Your task to perform on an android device: empty trash in the gmail app Image 0: 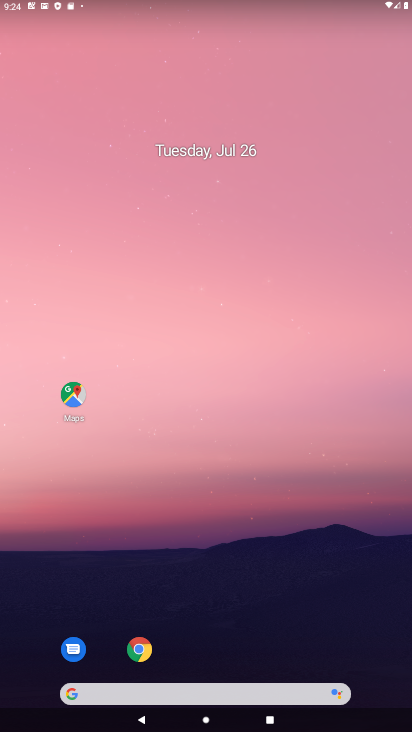
Step 0: drag from (184, 650) to (311, 41)
Your task to perform on an android device: empty trash in the gmail app Image 1: 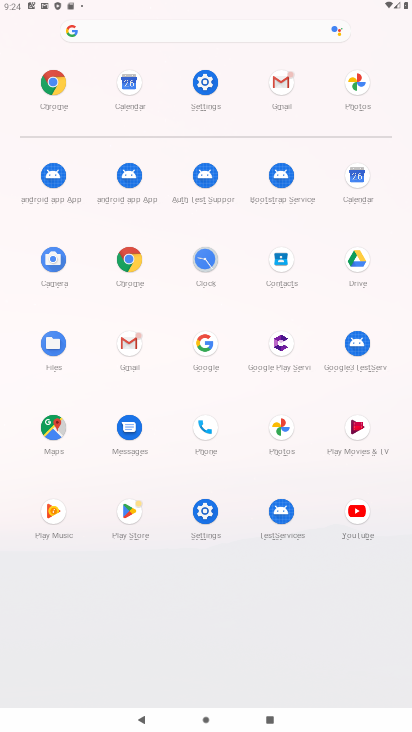
Step 1: click (129, 335)
Your task to perform on an android device: empty trash in the gmail app Image 2: 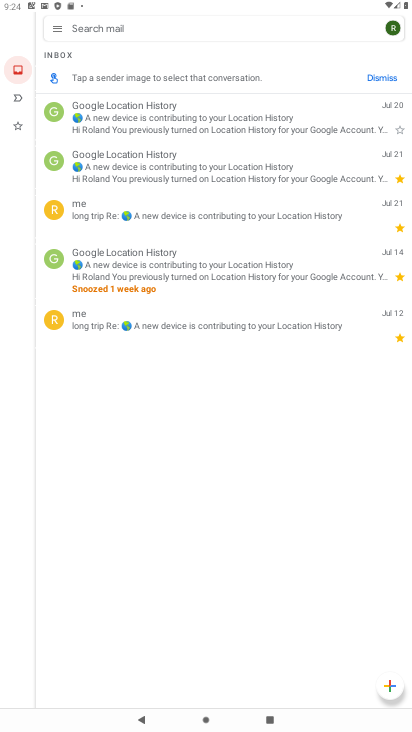
Step 2: click (48, 28)
Your task to perform on an android device: empty trash in the gmail app Image 3: 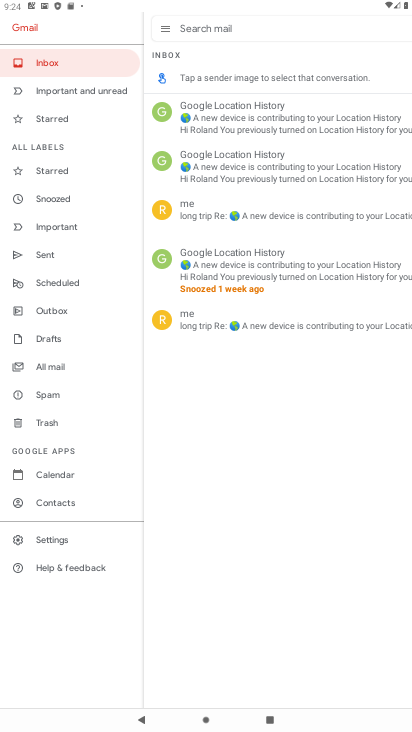
Step 3: click (63, 421)
Your task to perform on an android device: empty trash in the gmail app Image 4: 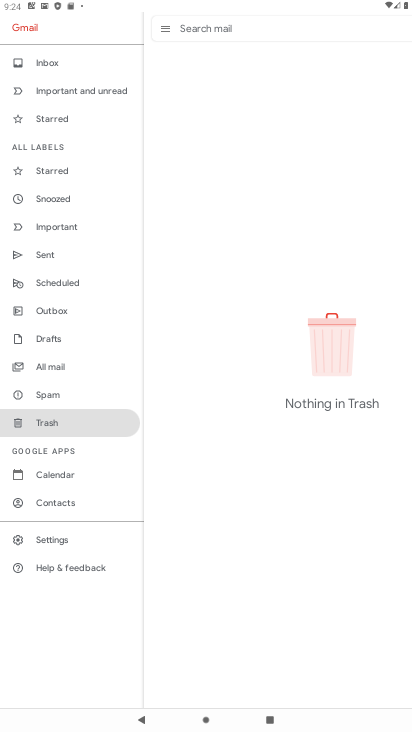
Step 4: drag from (193, 461) to (226, 203)
Your task to perform on an android device: empty trash in the gmail app Image 5: 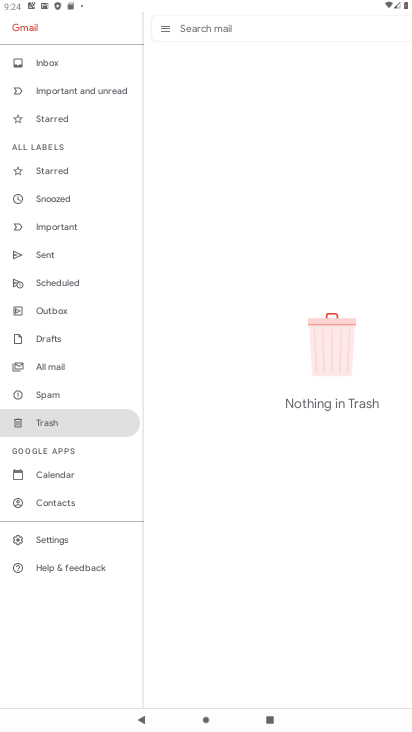
Step 5: click (46, 418)
Your task to perform on an android device: empty trash in the gmail app Image 6: 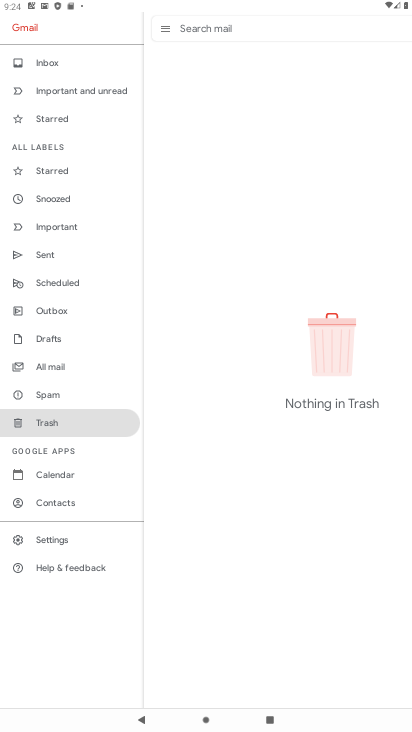
Step 6: click (28, 420)
Your task to perform on an android device: empty trash in the gmail app Image 7: 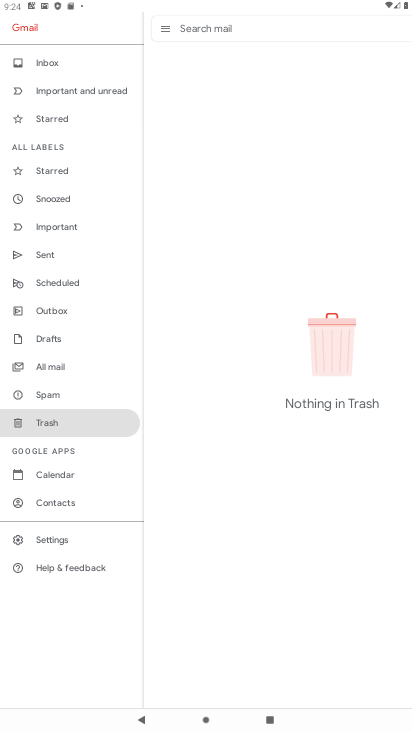
Step 7: click (27, 420)
Your task to perform on an android device: empty trash in the gmail app Image 8: 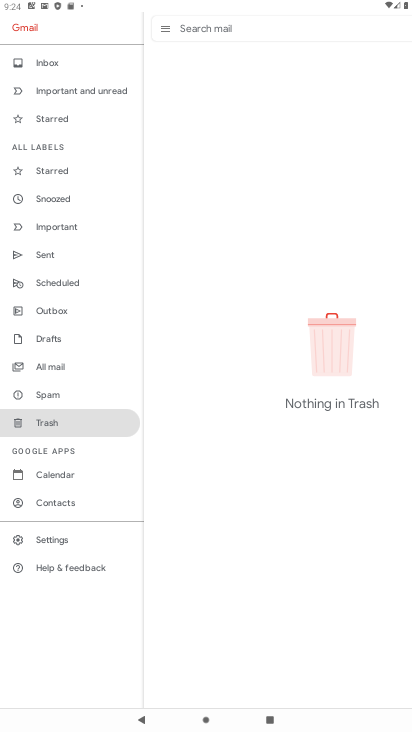
Step 8: click (27, 420)
Your task to perform on an android device: empty trash in the gmail app Image 9: 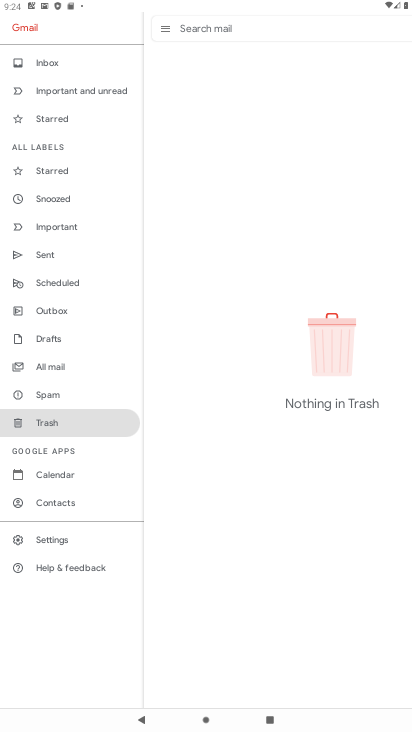
Step 9: drag from (244, 471) to (283, 213)
Your task to perform on an android device: empty trash in the gmail app Image 10: 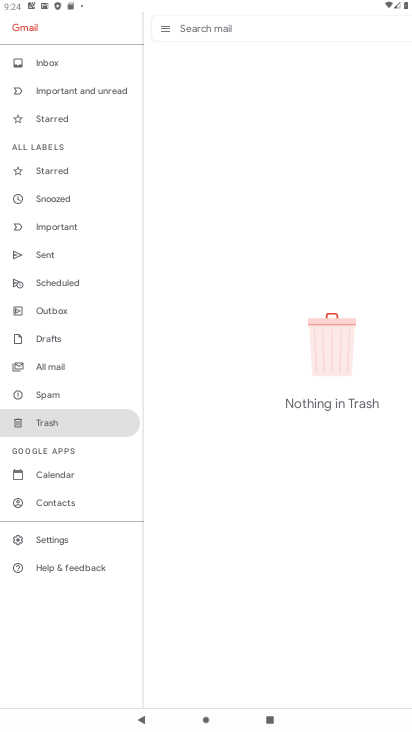
Step 10: click (39, 423)
Your task to perform on an android device: empty trash in the gmail app Image 11: 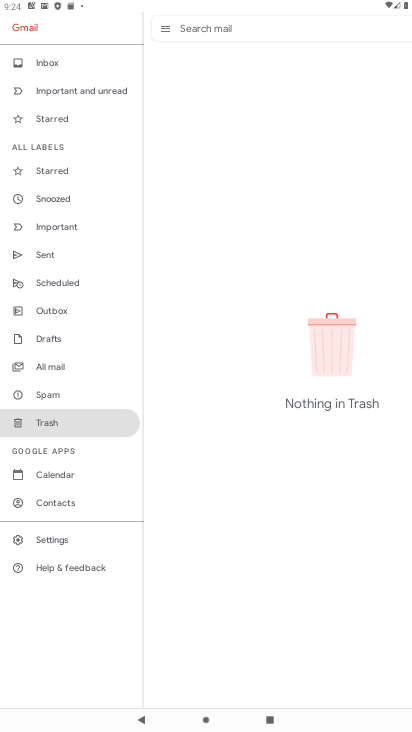
Step 11: drag from (243, 512) to (230, 274)
Your task to perform on an android device: empty trash in the gmail app Image 12: 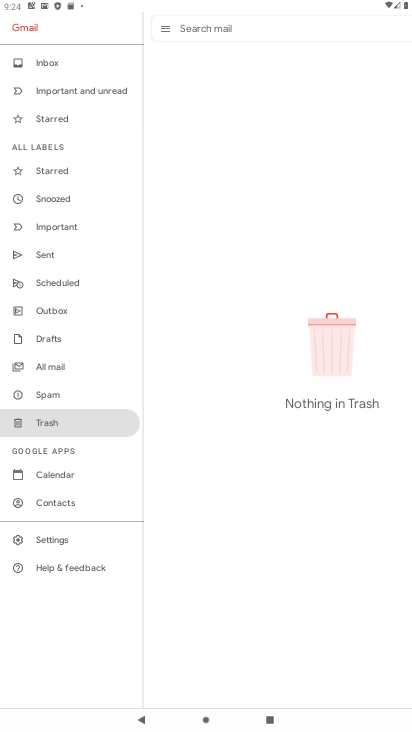
Step 12: drag from (308, 143) to (267, 570)
Your task to perform on an android device: empty trash in the gmail app Image 13: 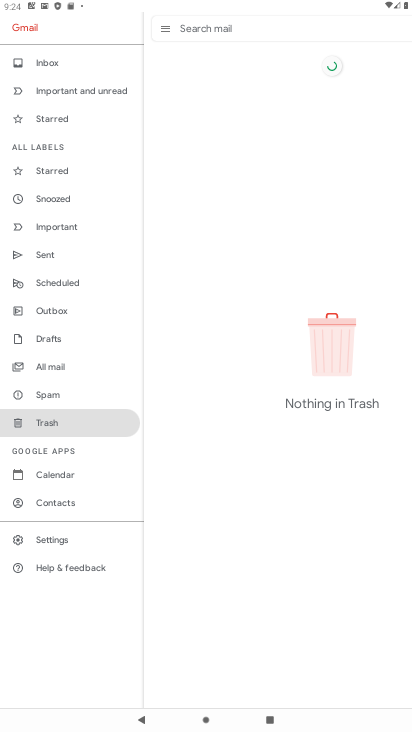
Step 13: drag from (281, 520) to (250, 359)
Your task to perform on an android device: empty trash in the gmail app Image 14: 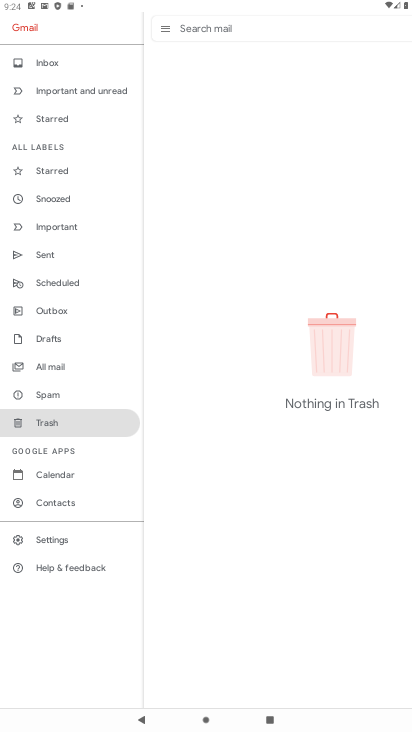
Step 14: click (281, 153)
Your task to perform on an android device: empty trash in the gmail app Image 15: 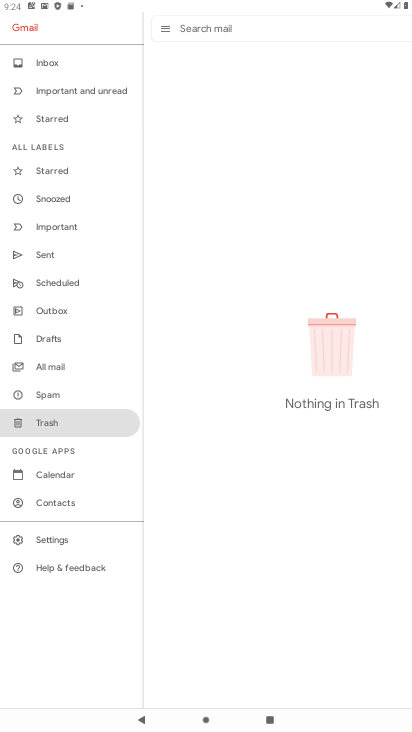
Step 15: click (286, 317)
Your task to perform on an android device: empty trash in the gmail app Image 16: 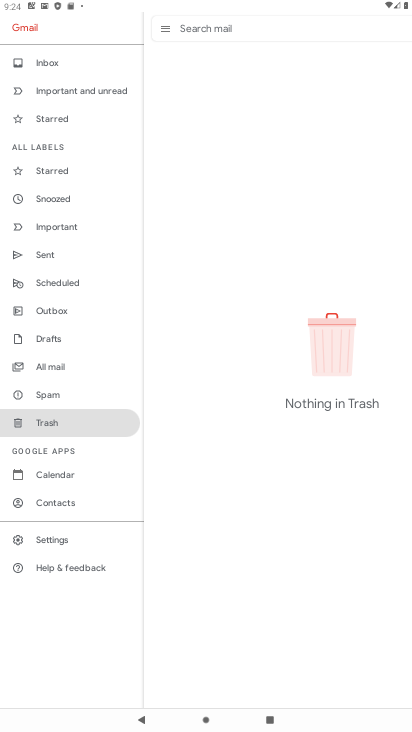
Step 16: task complete